Your task to perform on an android device: Open Chrome and go to settings Image 0: 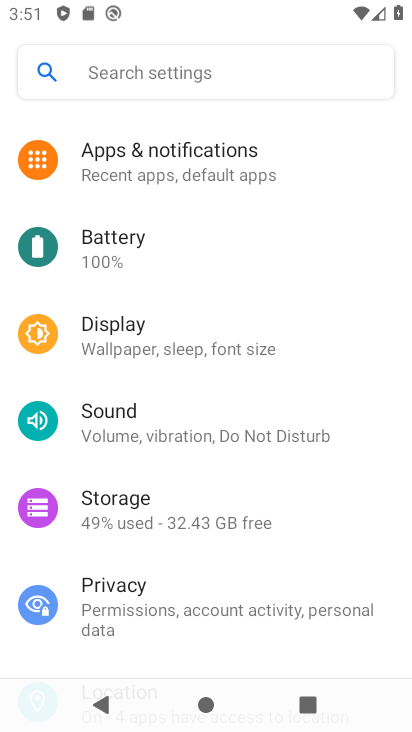
Step 0: press home button
Your task to perform on an android device: Open Chrome and go to settings Image 1: 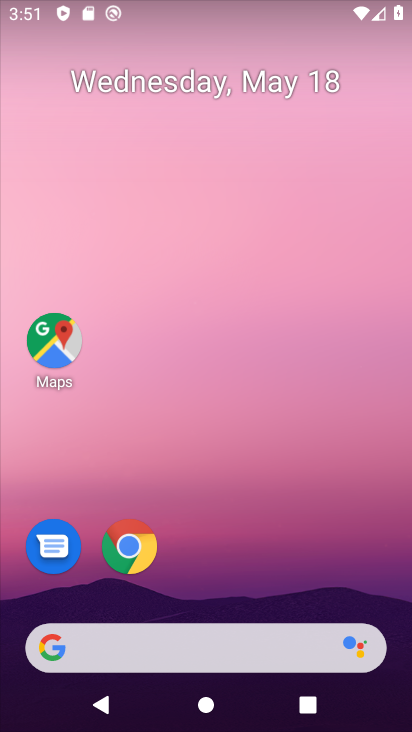
Step 1: click (116, 565)
Your task to perform on an android device: Open Chrome and go to settings Image 2: 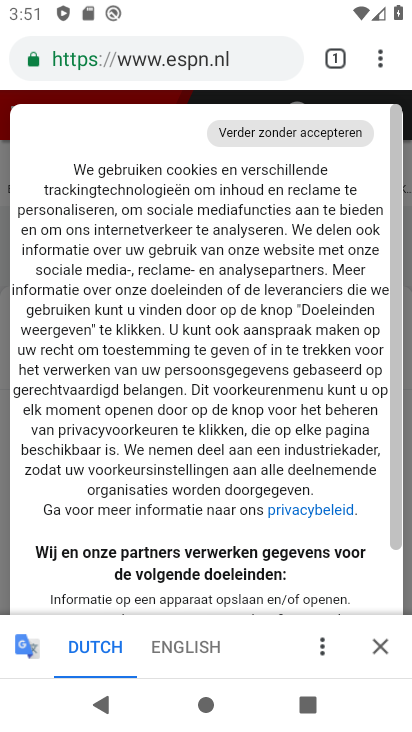
Step 2: click (394, 63)
Your task to perform on an android device: Open Chrome and go to settings Image 3: 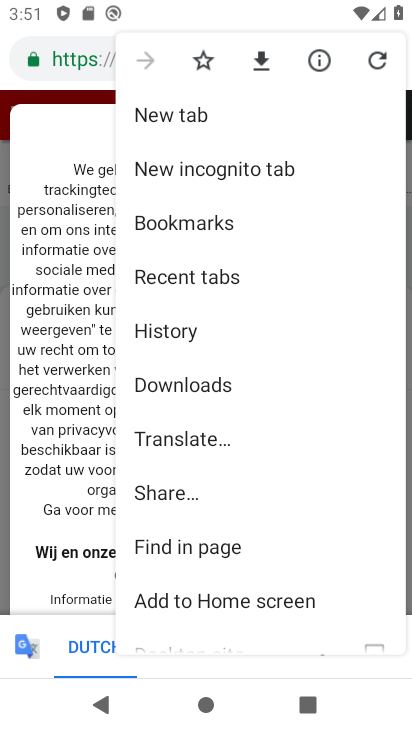
Step 3: drag from (181, 556) to (266, 196)
Your task to perform on an android device: Open Chrome and go to settings Image 4: 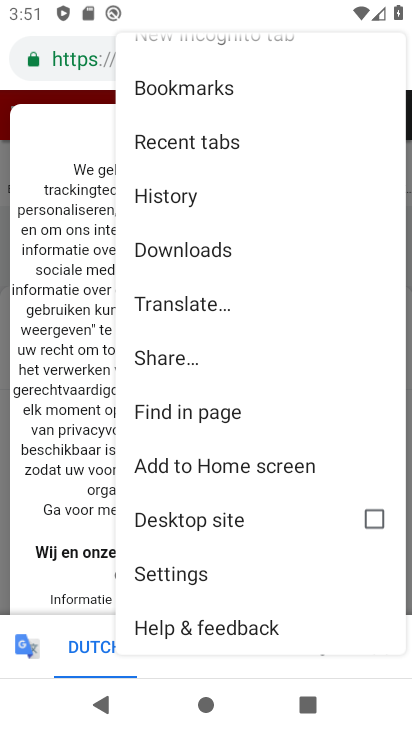
Step 4: click (183, 582)
Your task to perform on an android device: Open Chrome and go to settings Image 5: 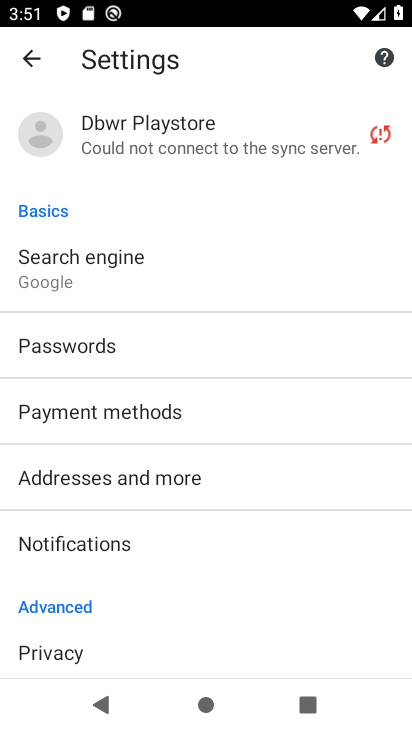
Step 5: task complete